Your task to perform on an android device: uninstall "Messages" Image 0: 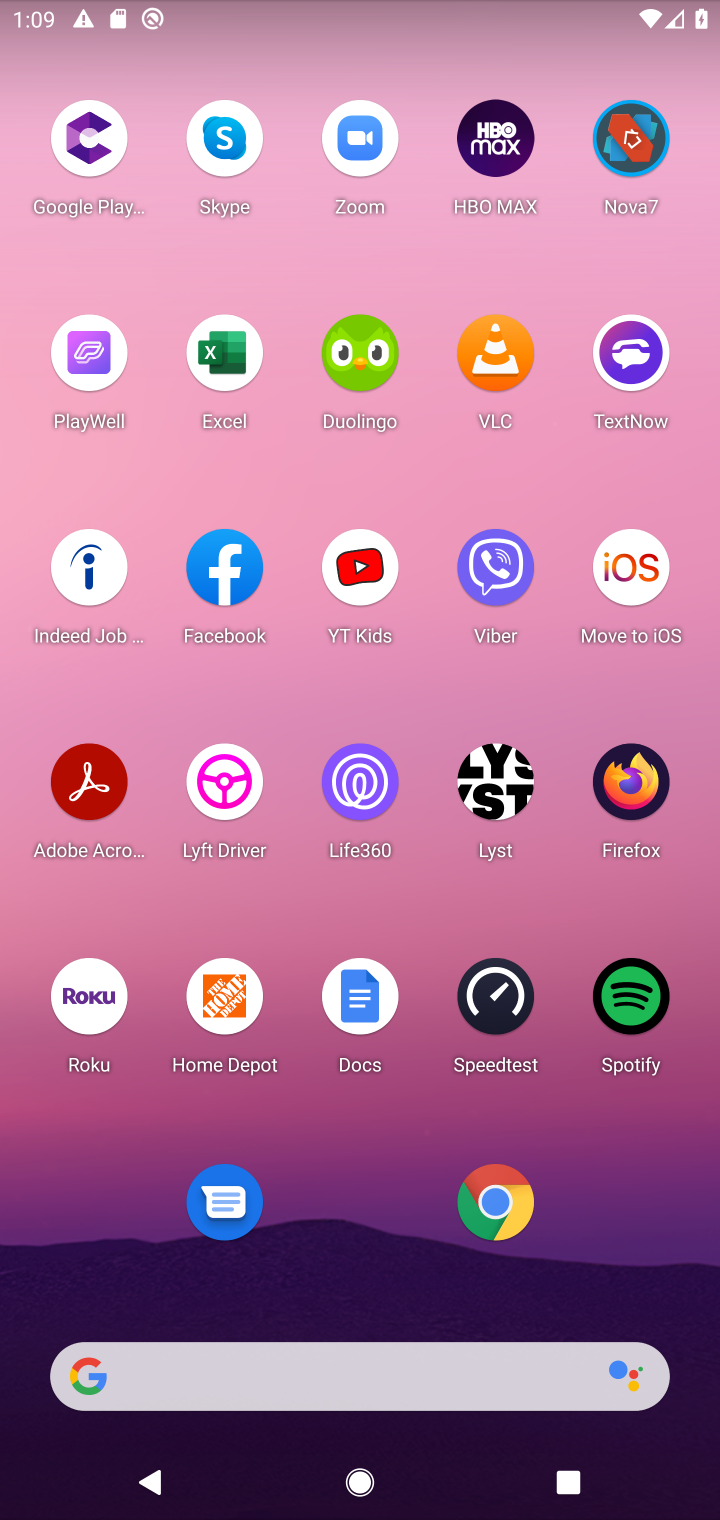
Step 0: task impossible